Your task to perform on an android device: turn smart compose on in the gmail app Image 0: 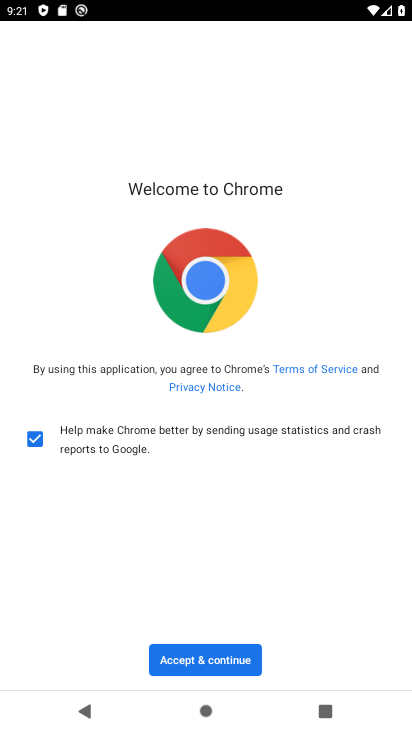
Step 0: click (189, 662)
Your task to perform on an android device: turn smart compose on in the gmail app Image 1: 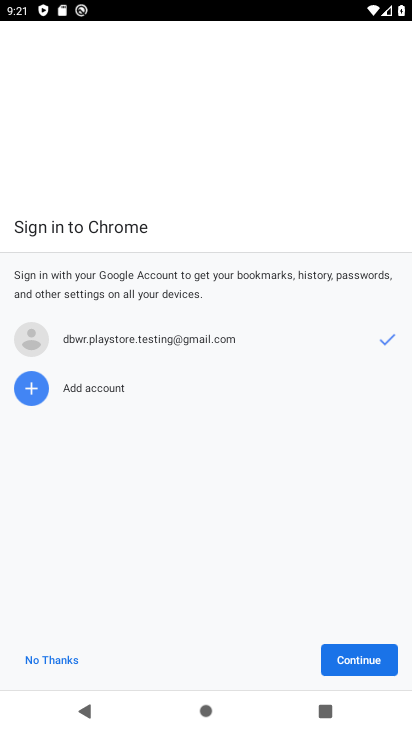
Step 1: click (344, 657)
Your task to perform on an android device: turn smart compose on in the gmail app Image 2: 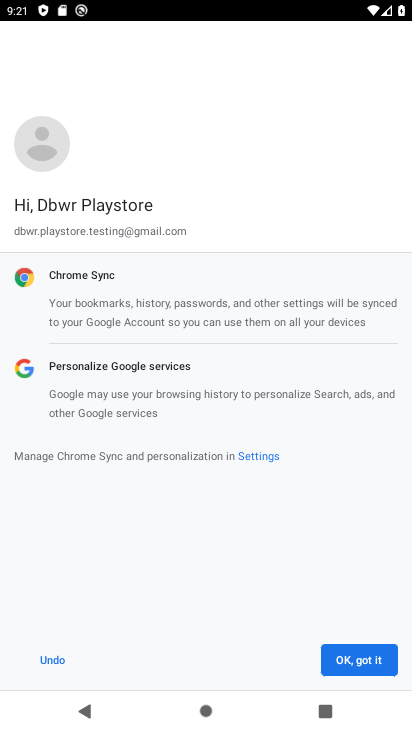
Step 2: click (361, 651)
Your task to perform on an android device: turn smart compose on in the gmail app Image 3: 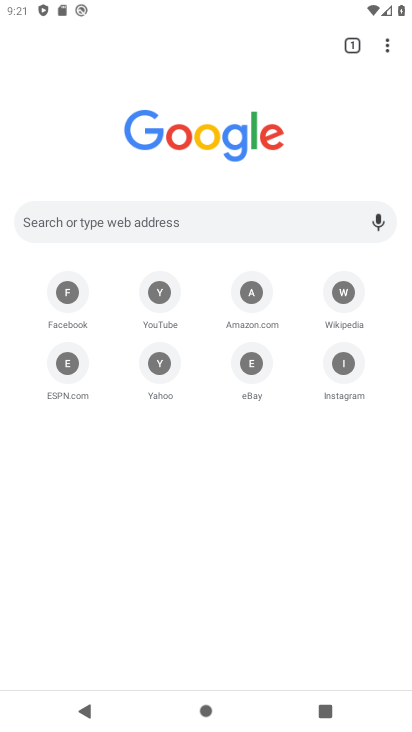
Step 3: press home button
Your task to perform on an android device: turn smart compose on in the gmail app Image 4: 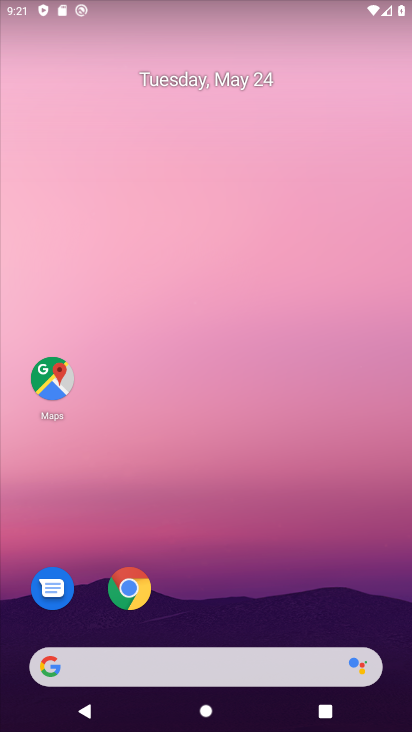
Step 4: drag from (258, 560) to (241, 68)
Your task to perform on an android device: turn smart compose on in the gmail app Image 5: 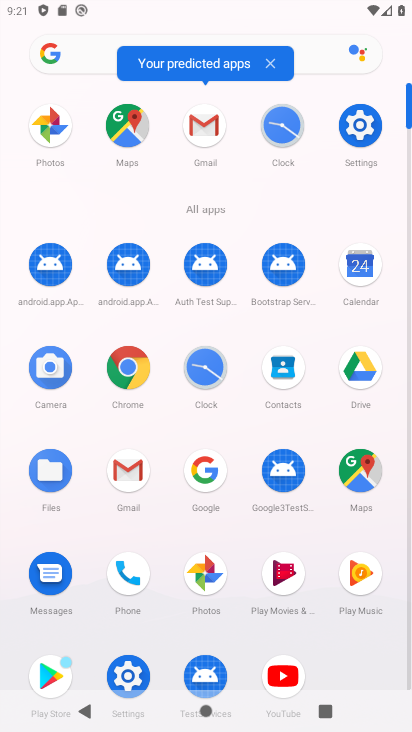
Step 5: drag from (11, 524) to (25, 228)
Your task to perform on an android device: turn smart compose on in the gmail app Image 6: 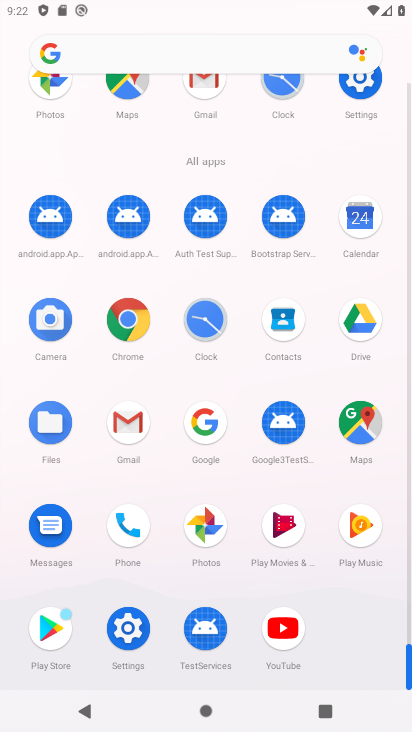
Step 6: click (126, 418)
Your task to perform on an android device: turn smart compose on in the gmail app Image 7: 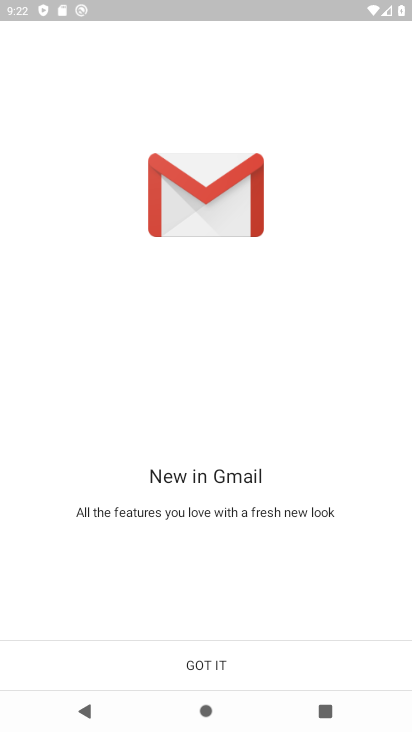
Step 7: click (192, 651)
Your task to perform on an android device: turn smart compose on in the gmail app Image 8: 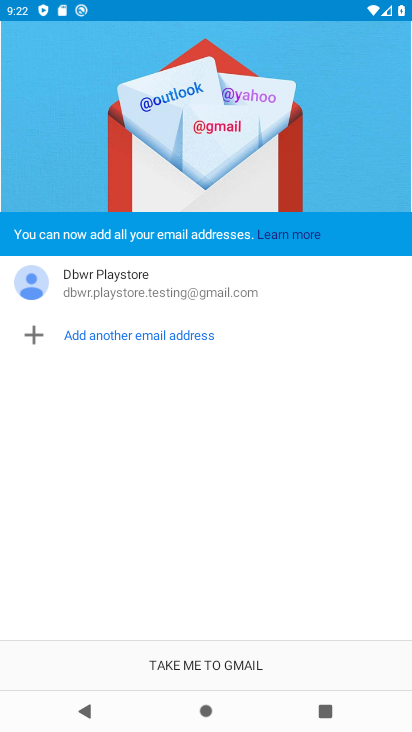
Step 8: click (206, 668)
Your task to perform on an android device: turn smart compose on in the gmail app Image 9: 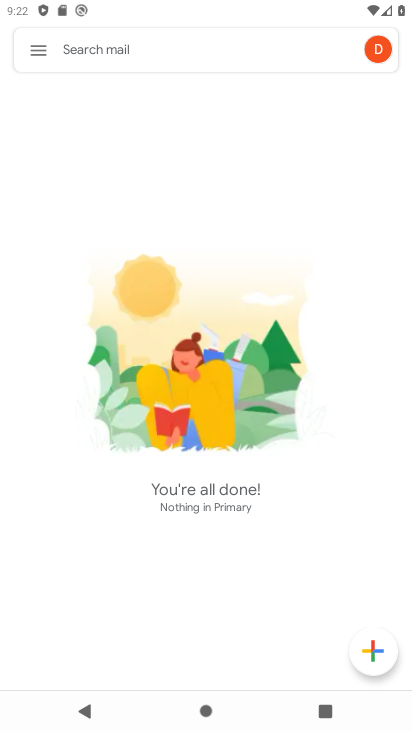
Step 9: click (29, 51)
Your task to perform on an android device: turn smart compose on in the gmail app Image 10: 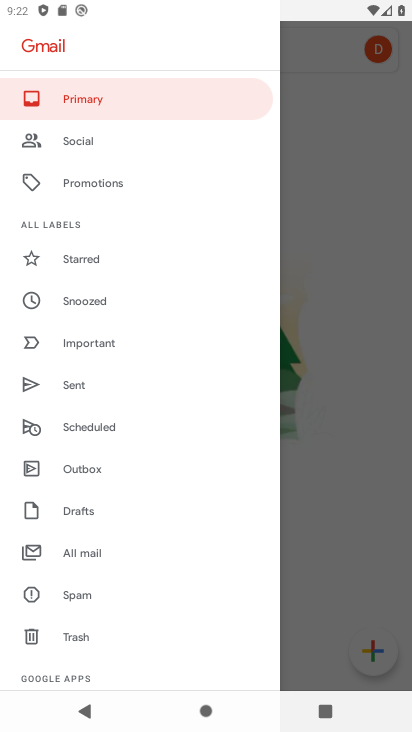
Step 10: drag from (141, 594) to (145, 277)
Your task to perform on an android device: turn smart compose on in the gmail app Image 11: 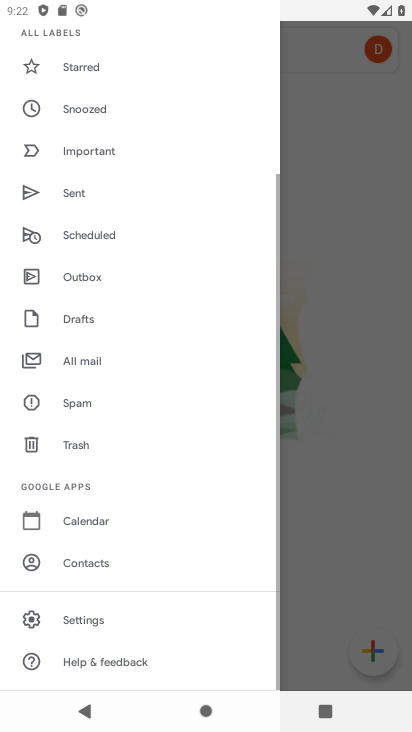
Step 11: click (81, 625)
Your task to perform on an android device: turn smart compose on in the gmail app Image 12: 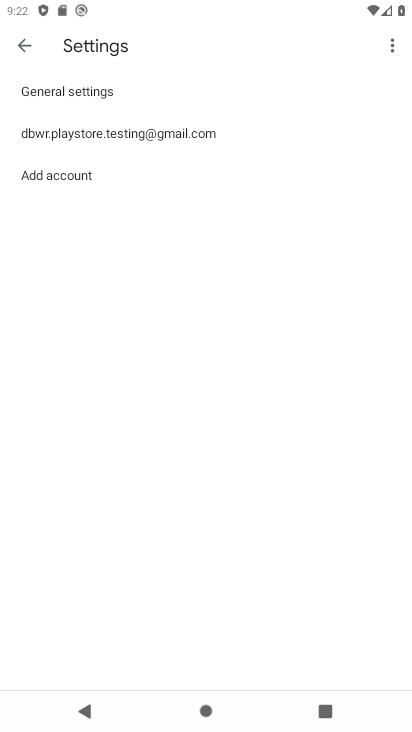
Step 12: click (127, 135)
Your task to perform on an android device: turn smart compose on in the gmail app Image 13: 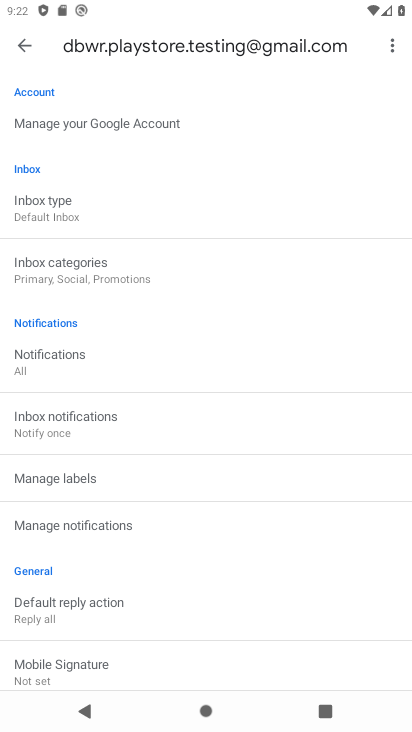
Step 13: task complete